Your task to perform on an android device: find which apps use the phone's location Image 0: 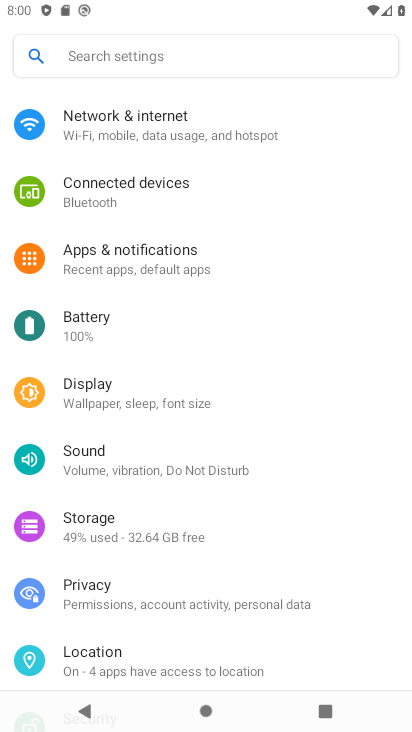
Step 0: drag from (302, 653) to (294, 337)
Your task to perform on an android device: find which apps use the phone's location Image 1: 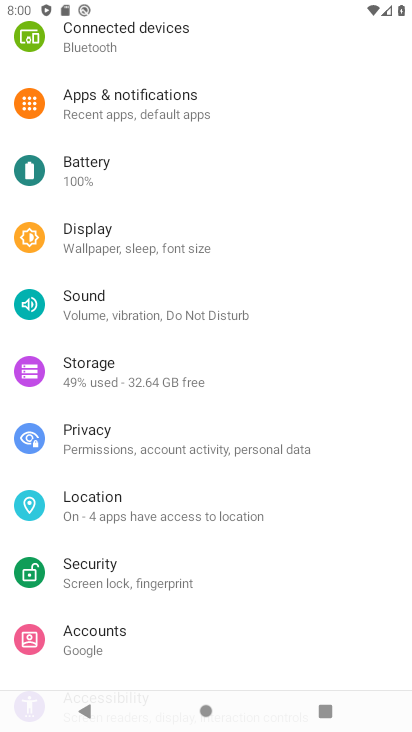
Step 1: press back button
Your task to perform on an android device: find which apps use the phone's location Image 2: 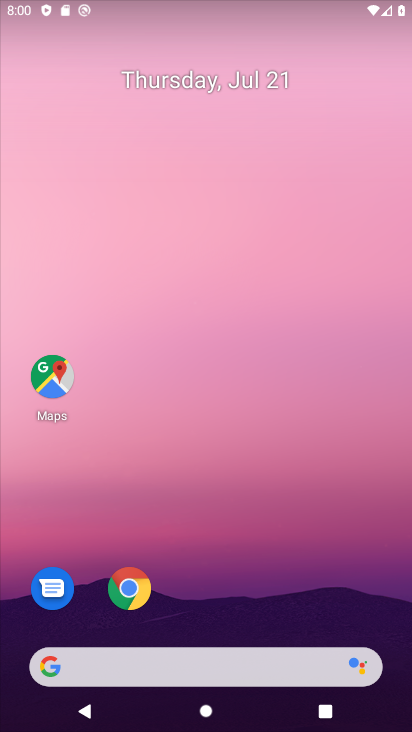
Step 2: drag from (235, 662) to (235, 283)
Your task to perform on an android device: find which apps use the phone's location Image 3: 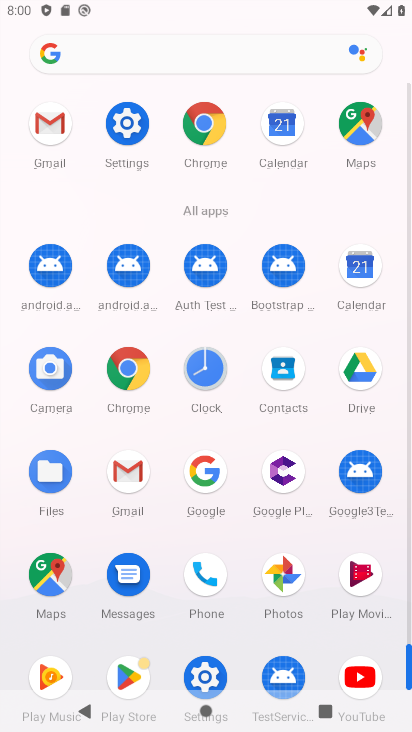
Step 3: click (133, 125)
Your task to perform on an android device: find which apps use the phone's location Image 4: 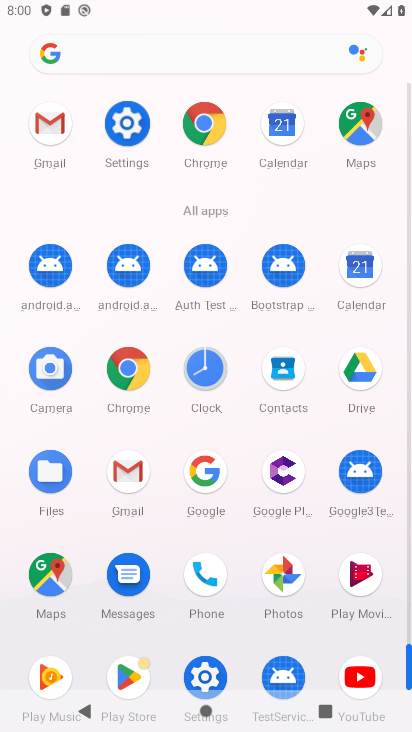
Step 4: click (133, 124)
Your task to perform on an android device: find which apps use the phone's location Image 5: 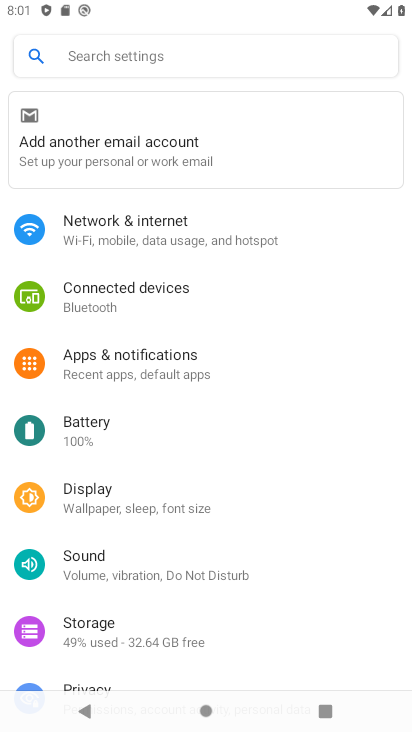
Step 5: drag from (127, 616) to (164, 331)
Your task to perform on an android device: find which apps use the phone's location Image 6: 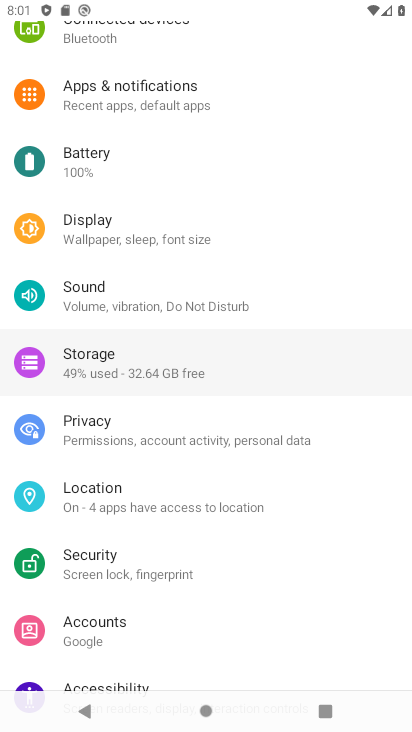
Step 6: drag from (141, 596) to (195, 279)
Your task to perform on an android device: find which apps use the phone's location Image 7: 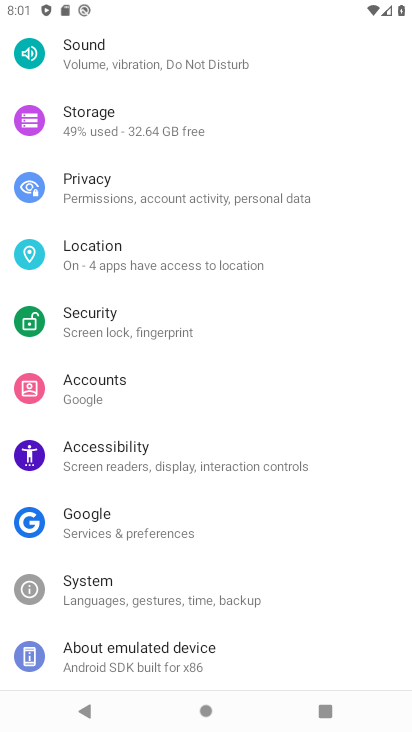
Step 7: click (121, 256)
Your task to perform on an android device: find which apps use the phone's location Image 8: 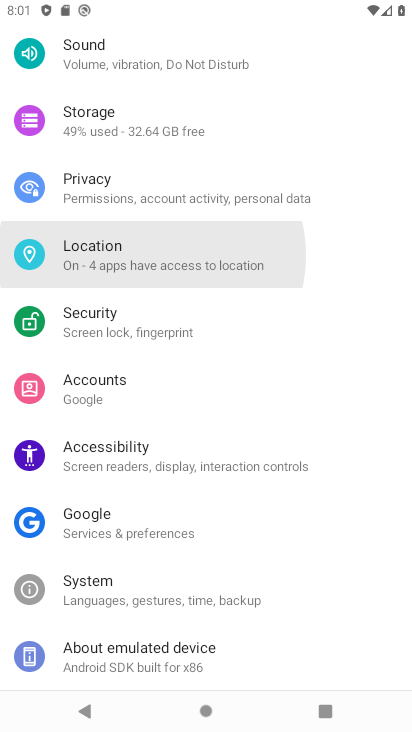
Step 8: click (121, 256)
Your task to perform on an android device: find which apps use the phone's location Image 9: 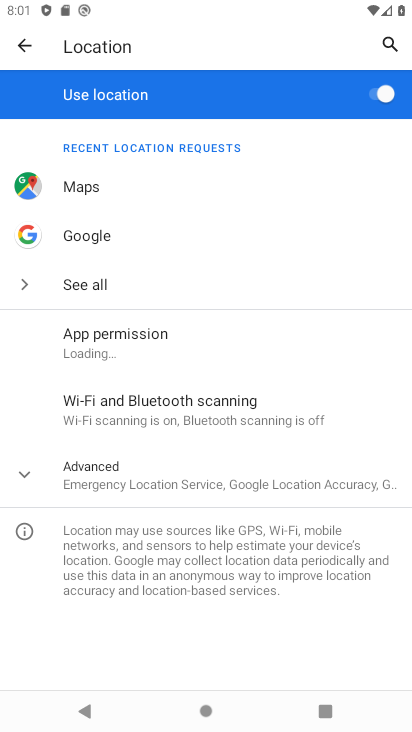
Step 9: click (103, 405)
Your task to perform on an android device: find which apps use the phone's location Image 10: 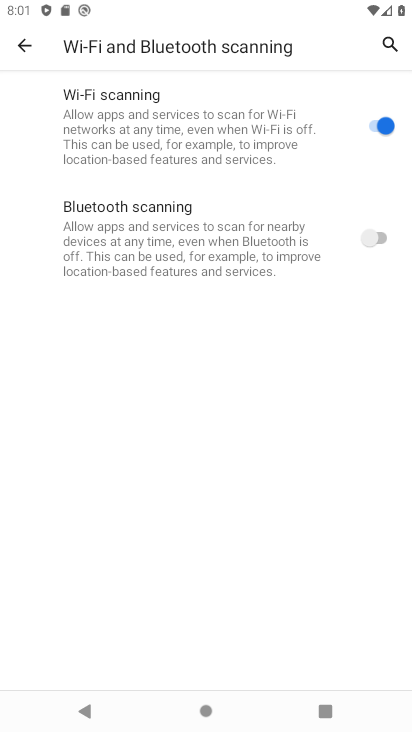
Step 10: click (30, 47)
Your task to perform on an android device: find which apps use the phone's location Image 11: 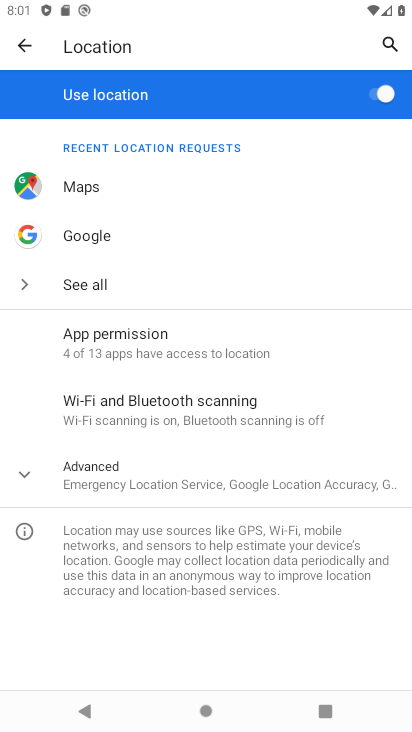
Step 11: click (108, 345)
Your task to perform on an android device: find which apps use the phone's location Image 12: 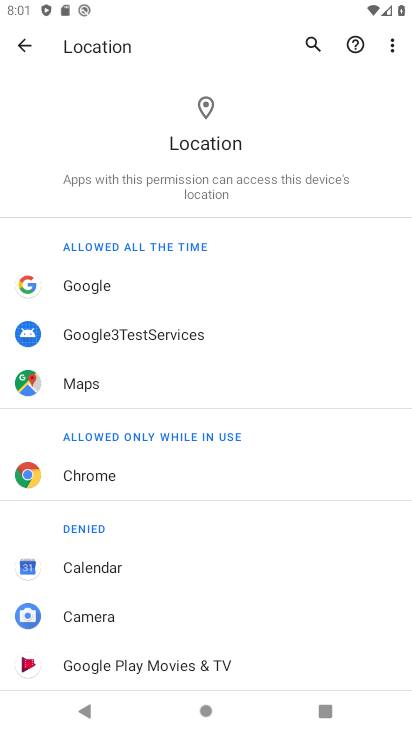
Step 12: task complete